Your task to perform on an android device: turn off notifications settings in the gmail app Image 0: 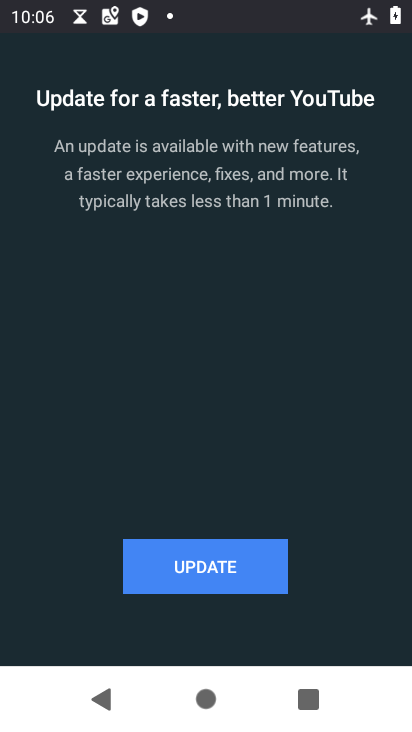
Step 0: press back button
Your task to perform on an android device: turn off notifications settings in the gmail app Image 1: 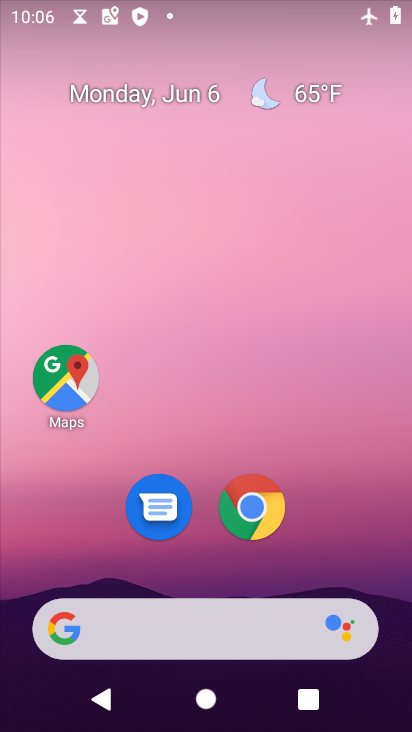
Step 1: drag from (229, 528) to (227, 239)
Your task to perform on an android device: turn off notifications settings in the gmail app Image 2: 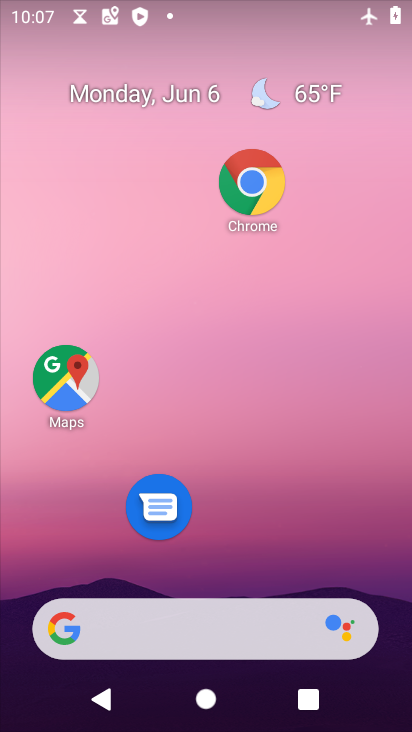
Step 2: drag from (288, 564) to (272, 239)
Your task to perform on an android device: turn off notifications settings in the gmail app Image 3: 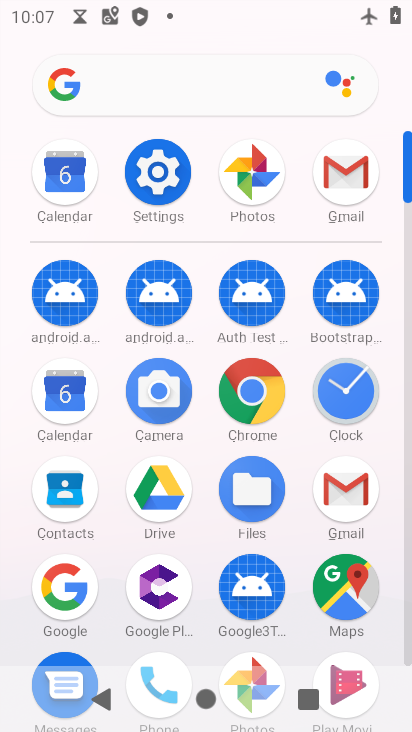
Step 3: click (329, 159)
Your task to perform on an android device: turn off notifications settings in the gmail app Image 4: 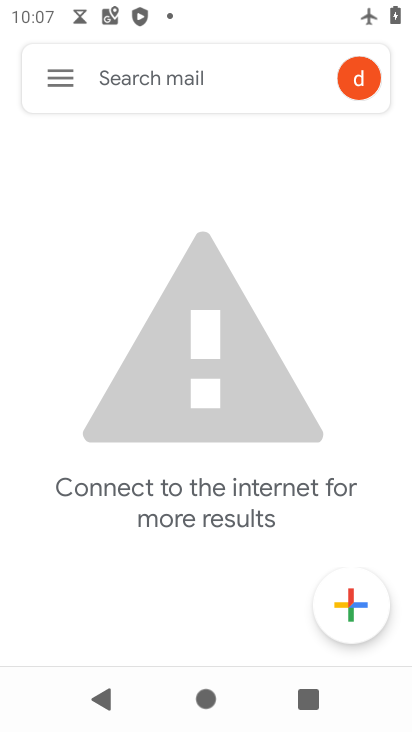
Step 4: click (58, 76)
Your task to perform on an android device: turn off notifications settings in the gmail app Image 5: 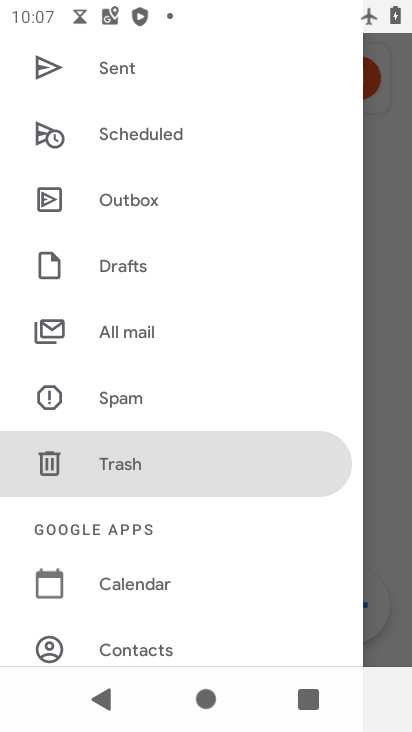
Step 5: click (206, 348)
Your task to perform on an android device: turn off notifications settings in the gmail app Image 6: 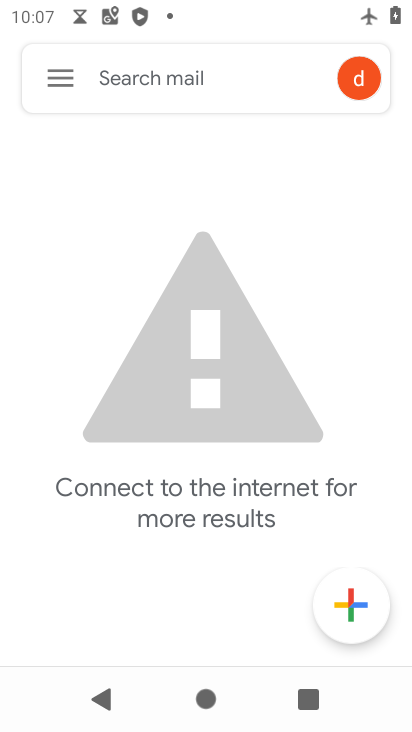
Step 6: click (51, 76)
Your task to perform on an android device: turn off notifications settings in the gmail app Image 7: 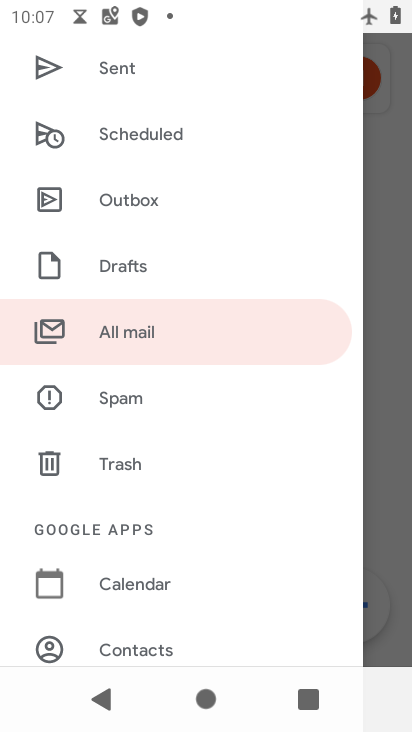
Step 7: drag from (275, 471) to (258, 113)
Your task to perform on an android device: turn off notifications settings in the gmail app Image 8: 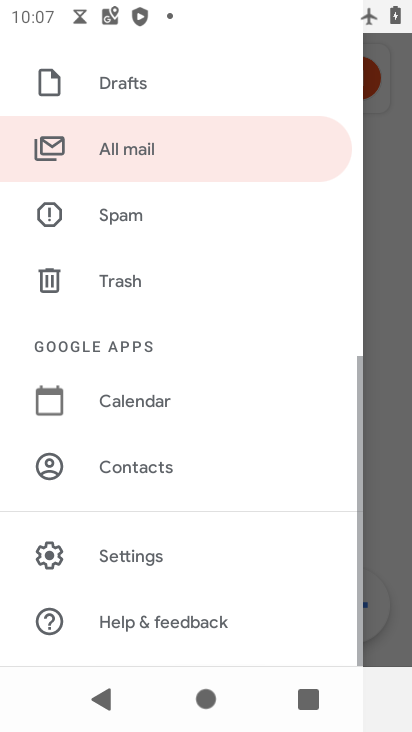
Step 8: click (159, 543)
Your task to perform on an android device: turn off notifications settings in the gmail app Image 9: 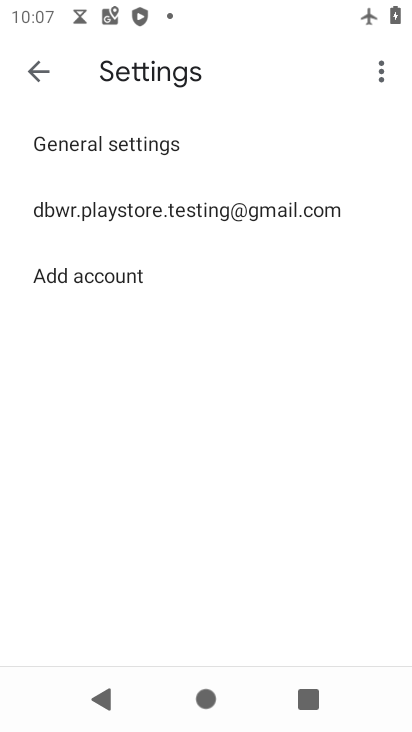
Step 9: click (88, 202)
Your task to perform on an android device: turn off notifications settings in the gmail app Image 10: 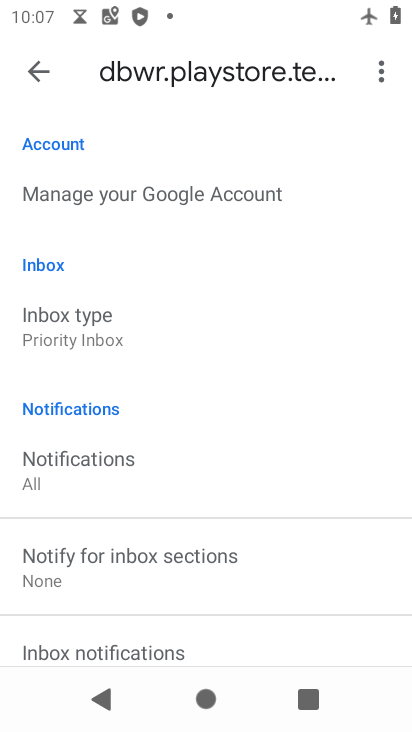
Step 10: drag from (134, 584) to (180, 365)
Your task to perform on an android device: turn off notifications settings in the gmail app Image 11: 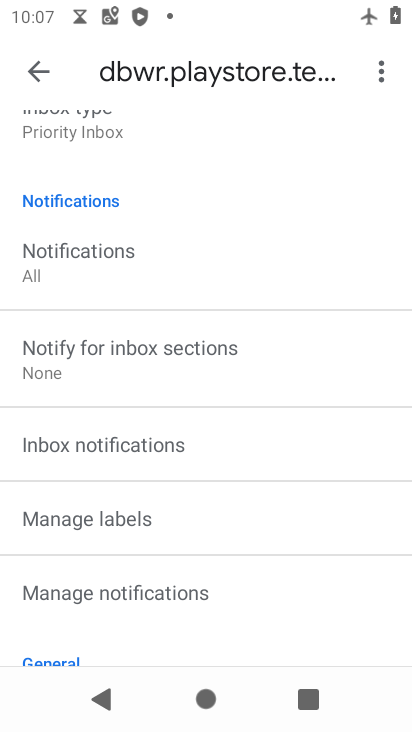
Step 11: click (117, 270)
Your task to perform on an android device: turn off notifications settings in the gmail app Image 12: 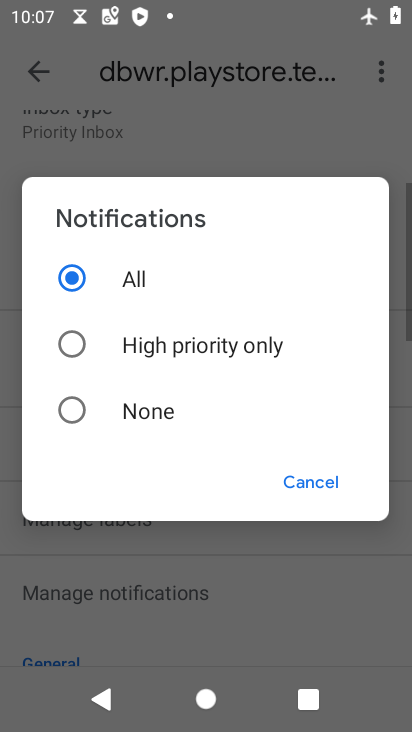
Step 12: click (117, 407)
Your task to perform on an android device: turn off notifications settings in the gmail app Image 13: 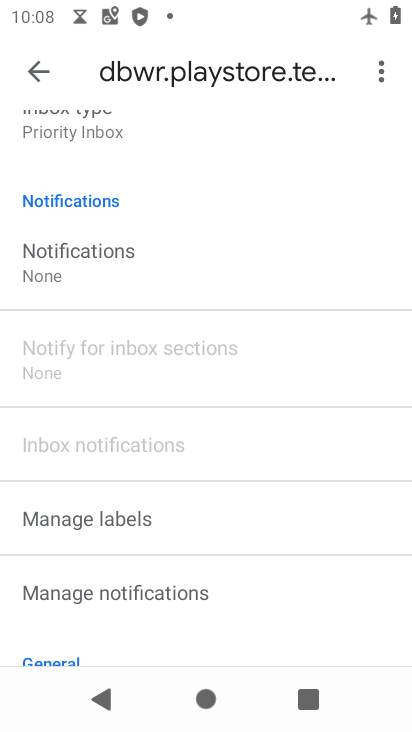
Step 13: task complete